Your task to perform on an android device: Go to Google Image 0: 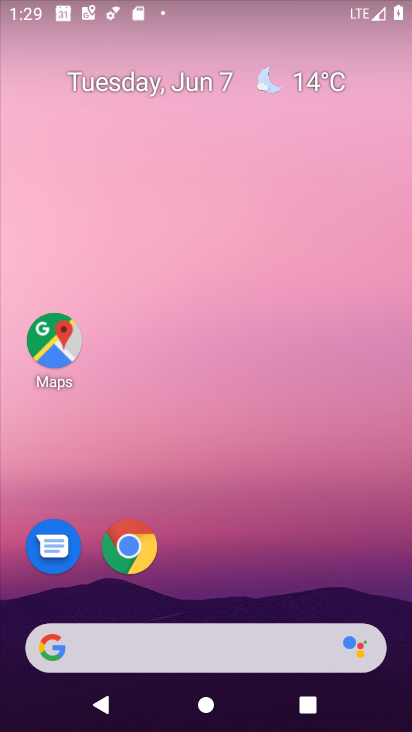
Step 0: drag from (272, 516) to (298, 117)
Your task to perform on an android device: Go to Google Image 1: 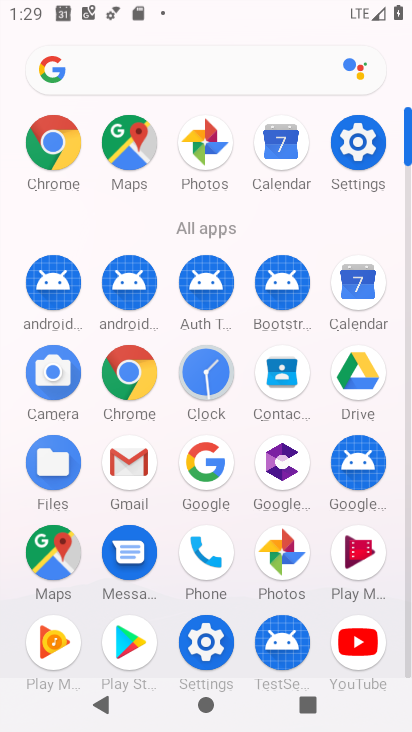
Step 1: click (203, 464)
Your task to perform on an android device: Go to Google Image 2: 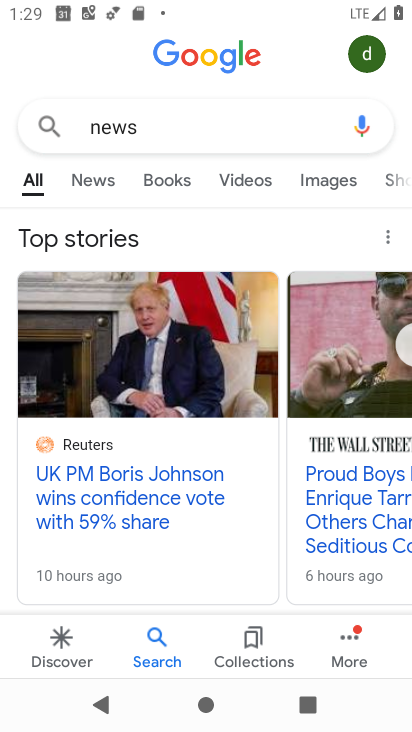
Step 2: drag from (146, 128) to (14, 139)
Your task to perform on an android device: Go to Google Image 3: 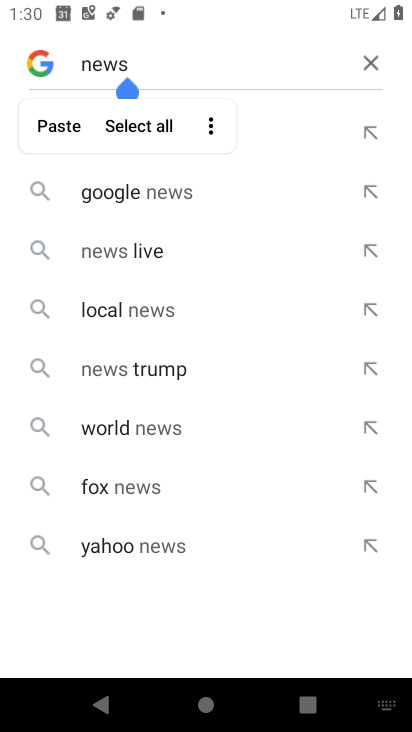
Step 3: click (377, 60)
Your task to perform on an android device: Go to Google Image 4: 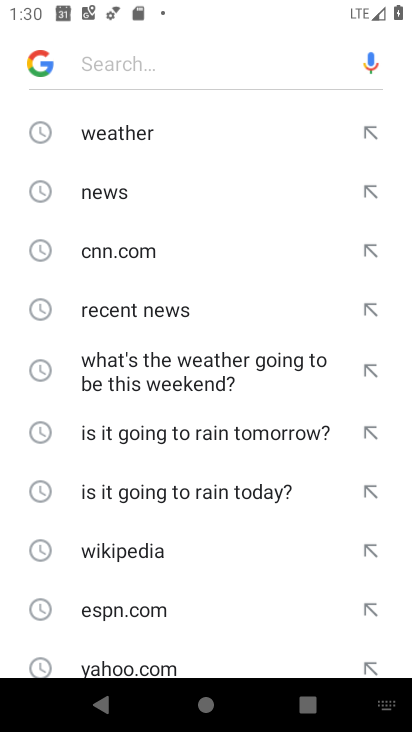
Step 4: click (35, 64)
Your task to perform on an android device: Go to Google Image 5: 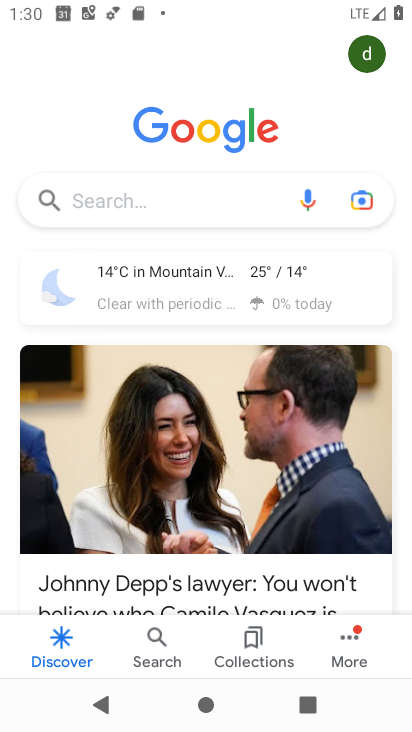
Step 5: task complete